Your task to perform on an android device: toggle location history Image 0: 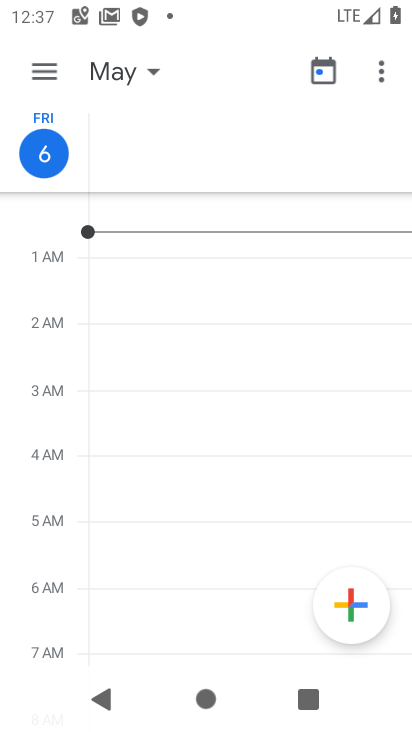
Step 0: press home button
Your task to perform on an android device: toggle location history Image 1: 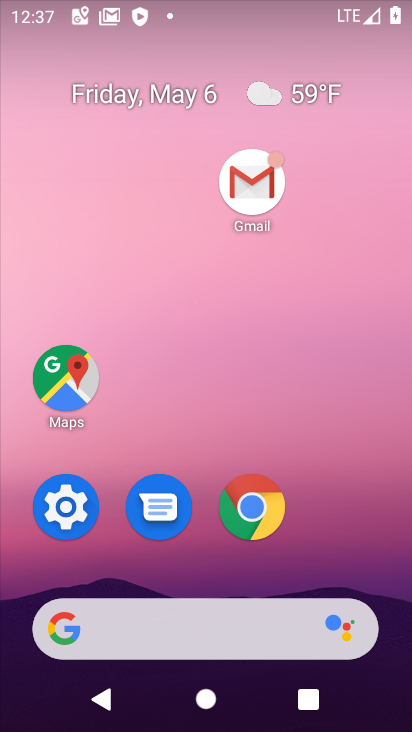
Step 1: click (56, 385)
Your task to perform on an android device: toggle location history Image 2: 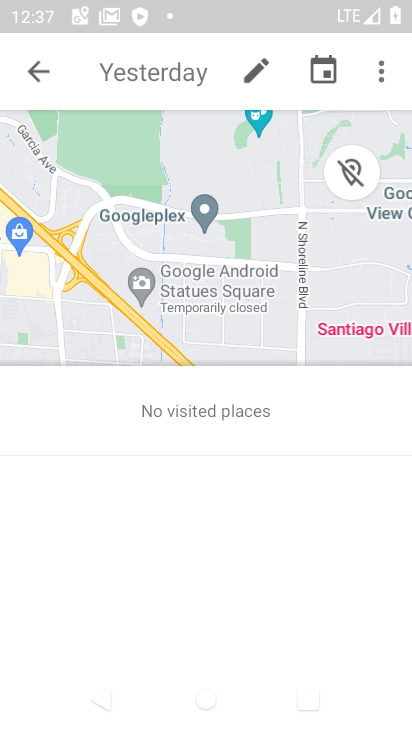
Step 2: click (381, 69)
Your task to perform on an android device: toggle location history Image 3: 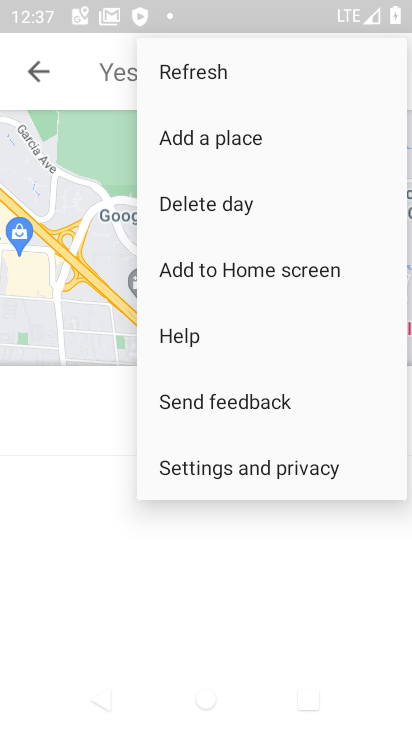
Step 3: click (273, 465)
Your task to perform on an android device: toggle location history Image 4: 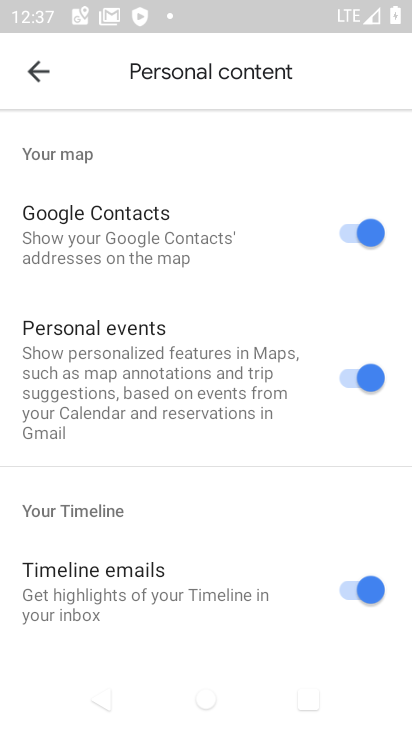
Step 4: drag from (250, 496) to (209, 156)
Your task to perform on an android device: toggle location history Image 5: 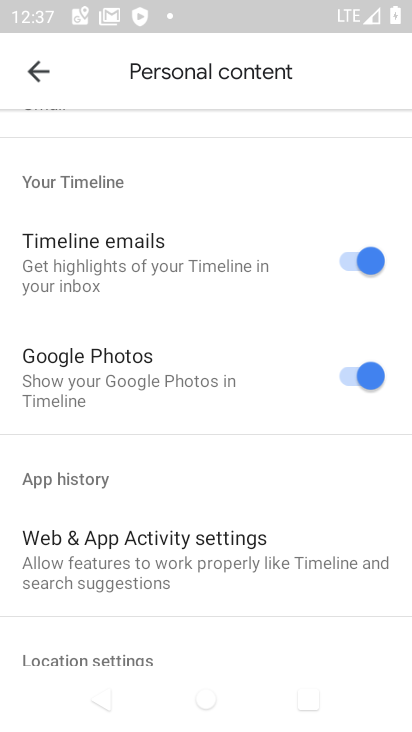
Step 5: drag from (197, 536) to (214, 283)
Your task to perform on an android device: toggle location history Image 6: 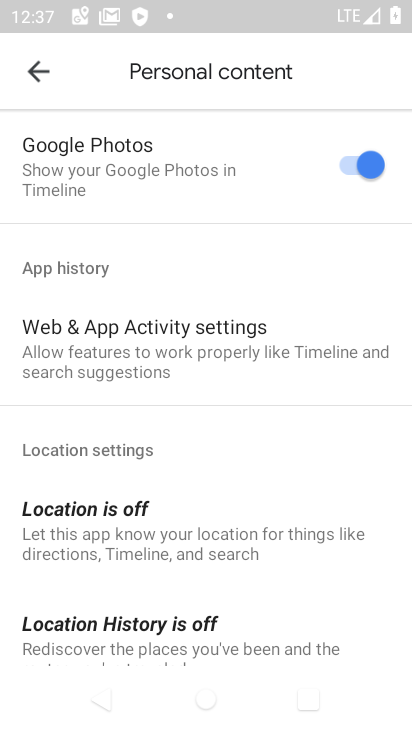
Step 6: drag from (237, 451) to (198, 128)
Your task to perform on an android device: toggle location history Image 7: 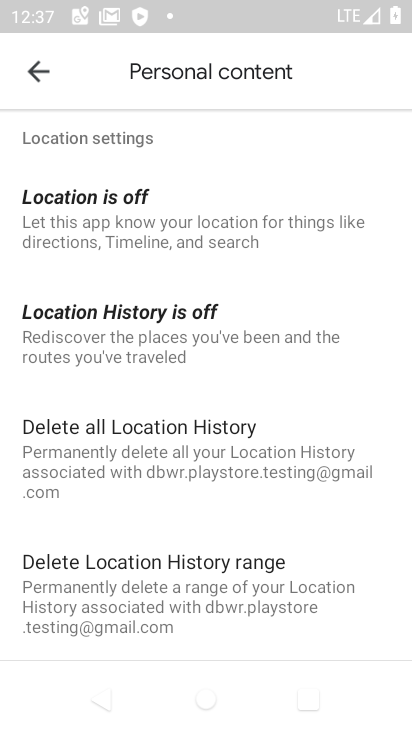
Step 7: click (132, 315)
Your task to perform on an android device: toggle location history Image 8: 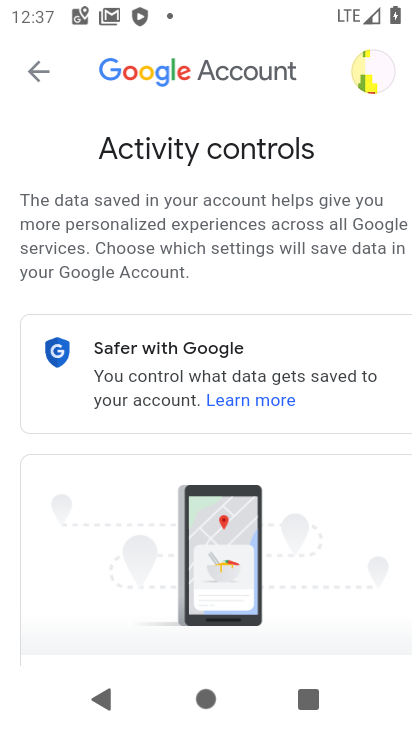
Step 8: drag from (323, 439) to (295, 146)
Your task to perform on an android device: toggle location history Image 9: 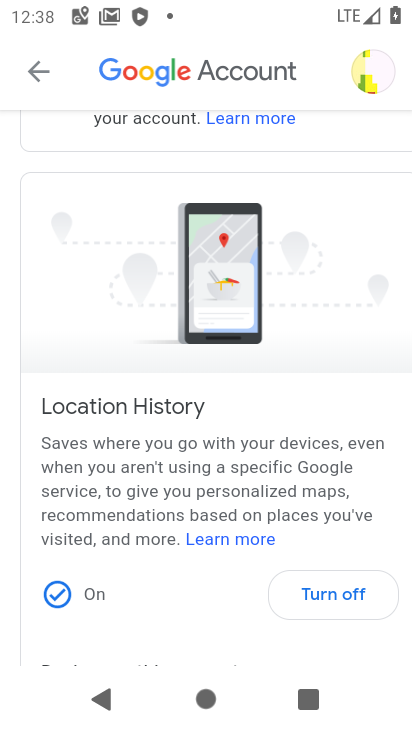
Step 9: click (335, 586)
Your task to perform on an android device: toggle location history Image 10: 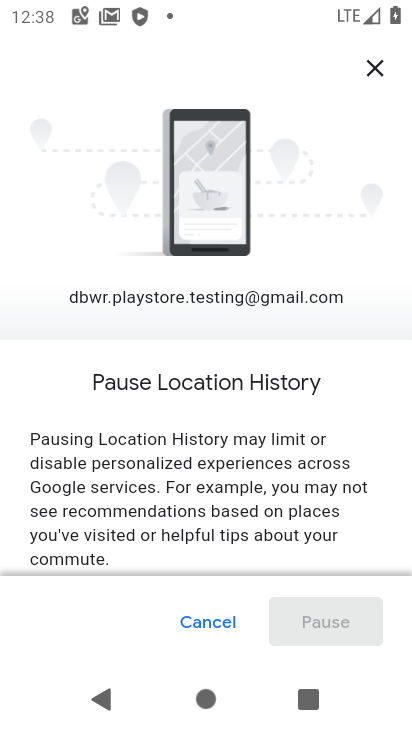
Step 10: drag from (291, 495) to (246, 145)
Your task to perform on an android device: toggle location history Image 11: 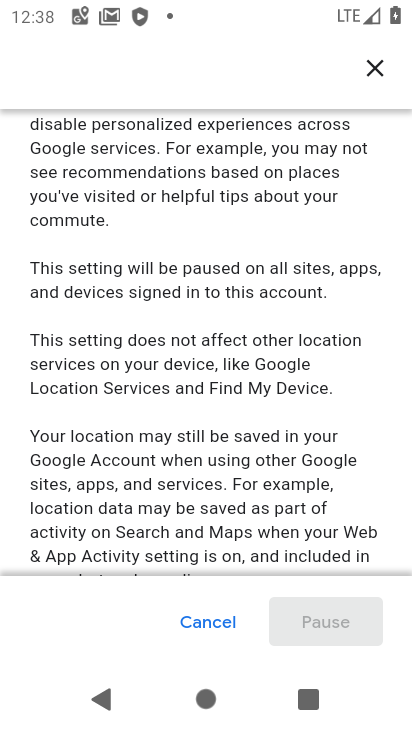
Step 11: drag from (256, 426) to (257, 150)
Your task to perform on an android device: toggle location history Image 12: 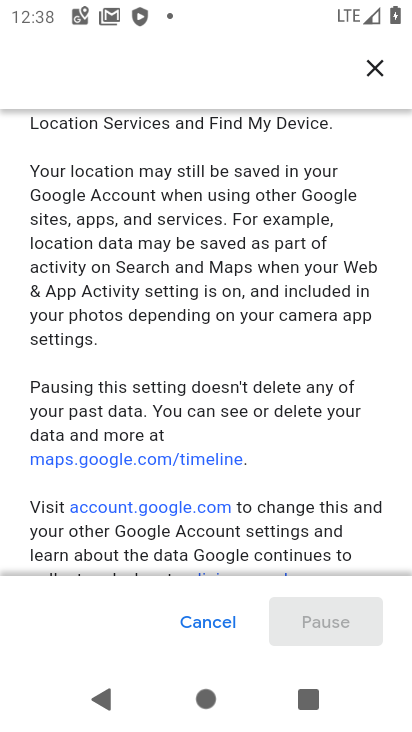
Step 12: drag from (279, 519) to (292, 175)
Your task to perform on an android device: toggle location history Image 13: 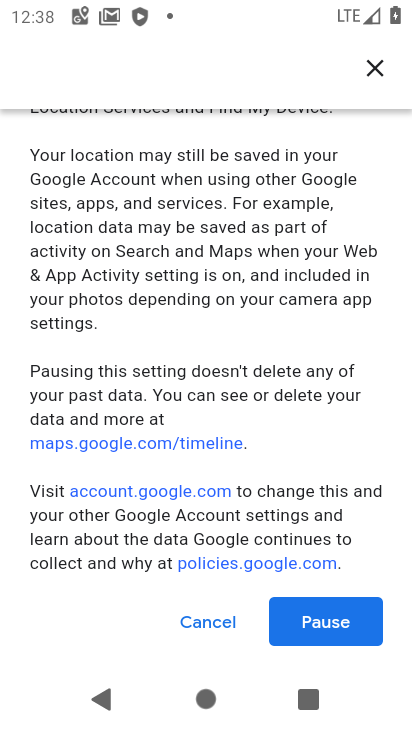
Step 13: click (317, 628)
Your task to perform on an android device: toggle location history Image 14: 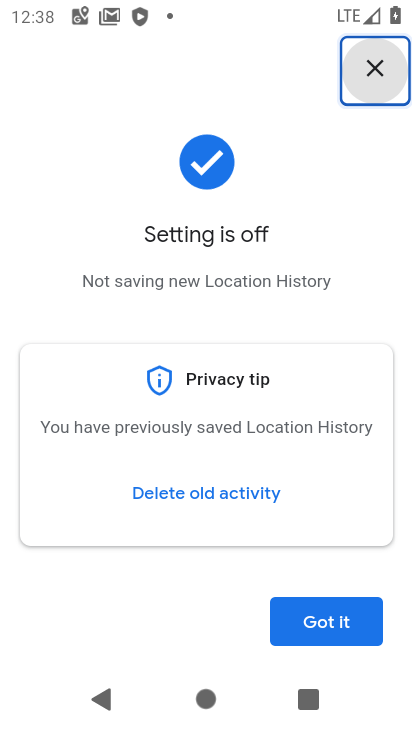
Step 14: click (322, 627)
Your task to perform on an android device: toggle location history Image 15: 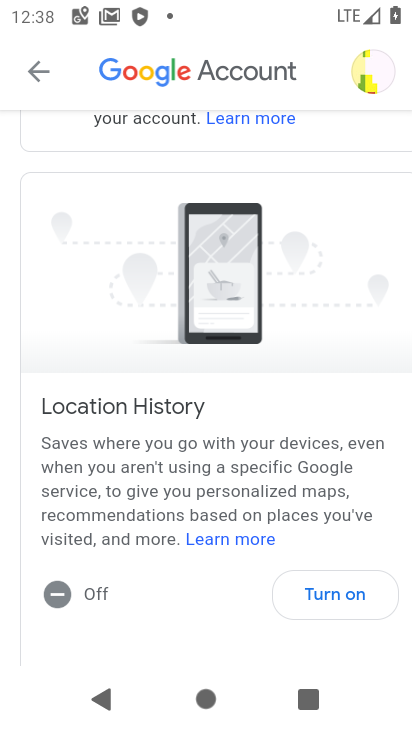
Step 15: task complete